Your task to perform on an android device: turn off location Image 0: 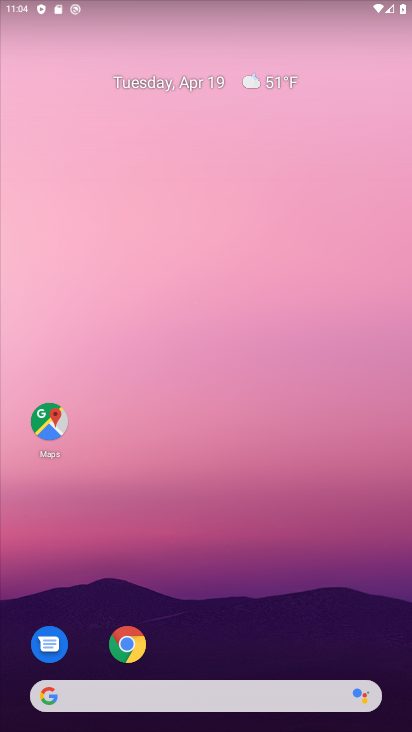
Step 0: drag from (262, 636) to (332, 35)
Your task to perform on an android device: turn off location Image 1: 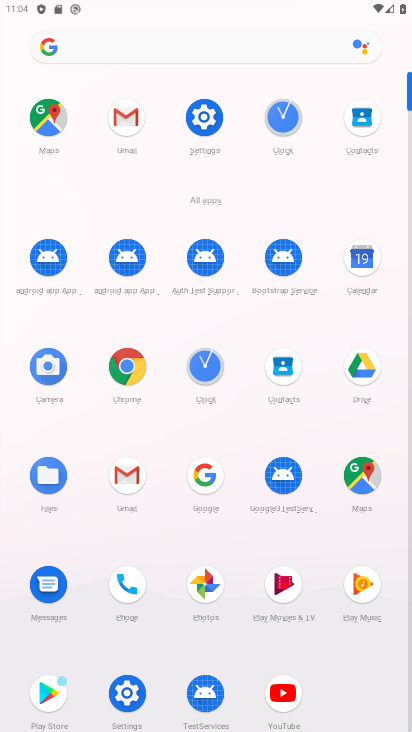
Step 1: click (208, 120)
Your task to perform on an android device: turn off location Image 2: 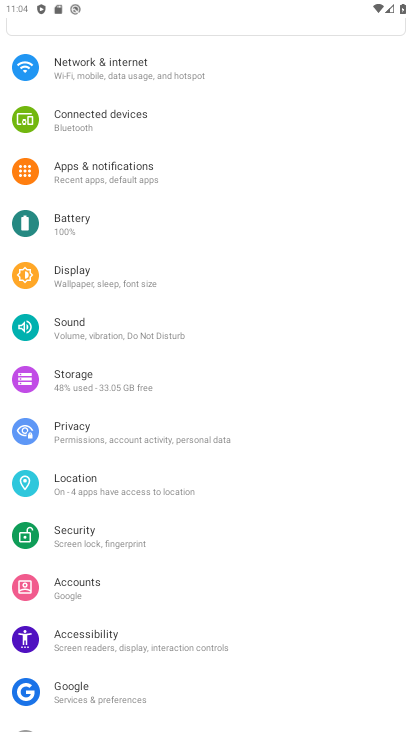
Step 2: click (76, 483)
Your task to perform on an android device: turn off location Image 3: 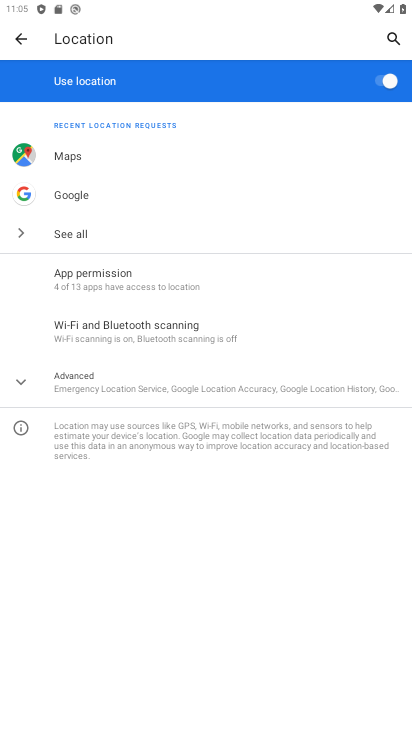
Step 3: click (396, 83)
Your task to perform on an android device: turn off location Image 4: 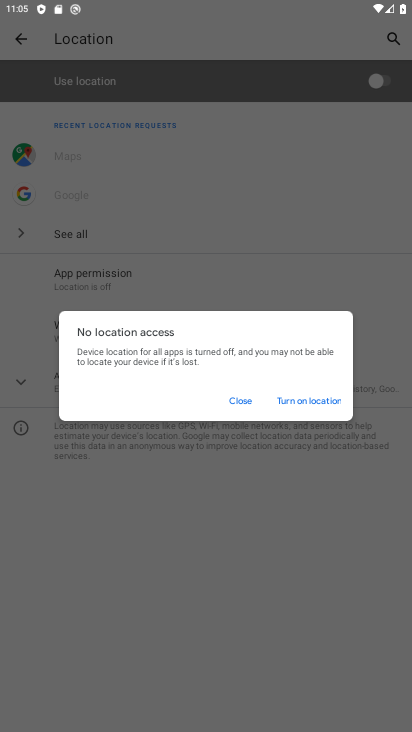
Step 4: click (250, 402)
Your task to perform on an android device: turn off location Image 5: 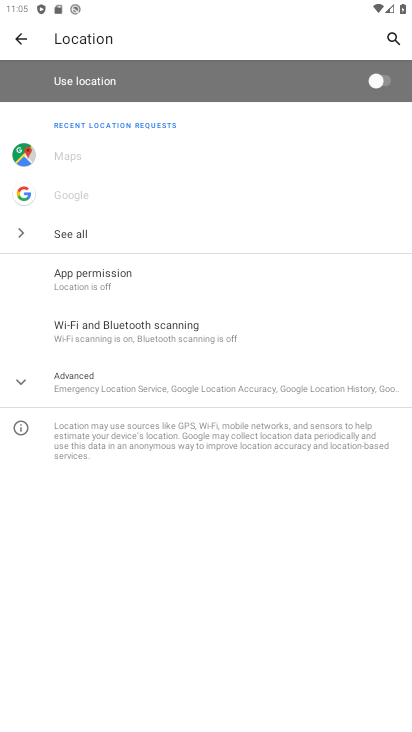
Step 5: task complete